Your task to perform on an android device: uninstall "eBay: The shopping marketplace" Image 0: 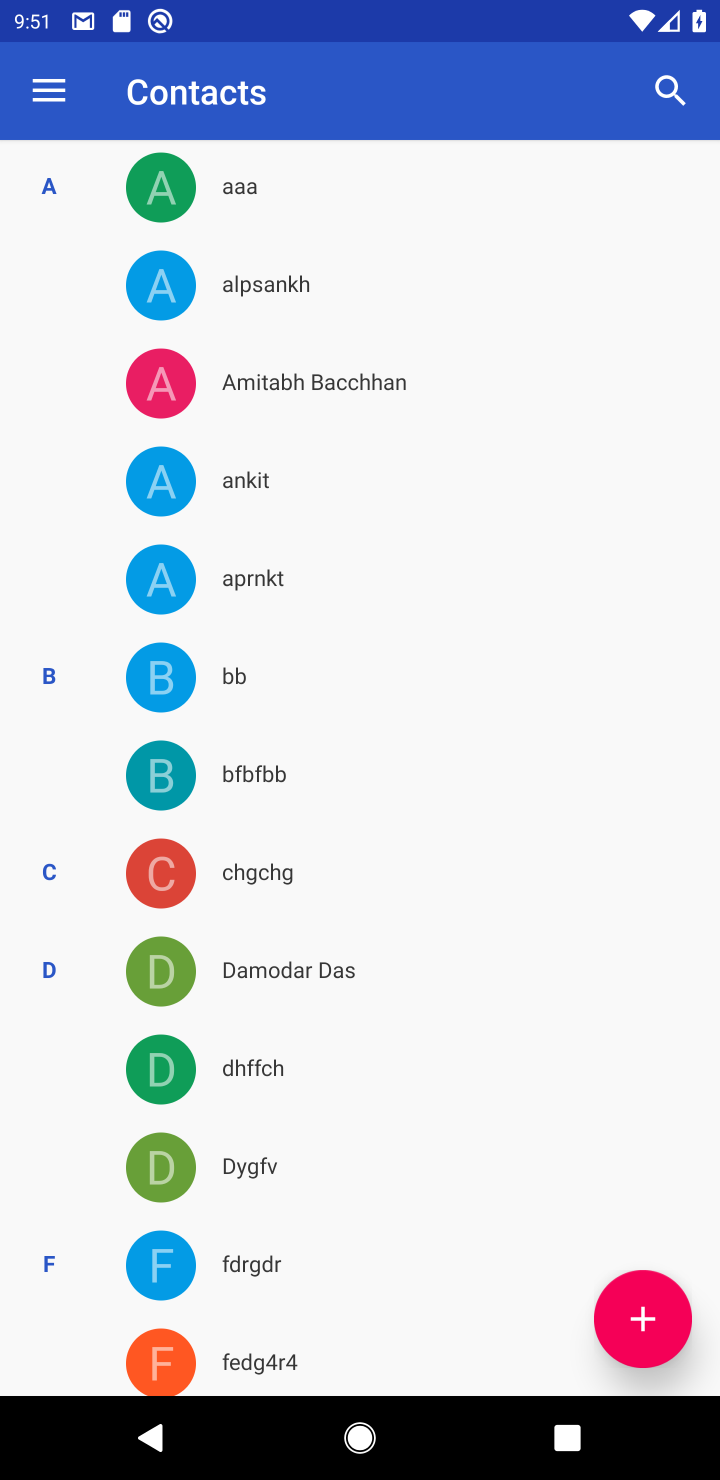
Step 0: press home button
Your task to perform on an android device: uninstall "eBay: The shopping marketplace" Image 1: 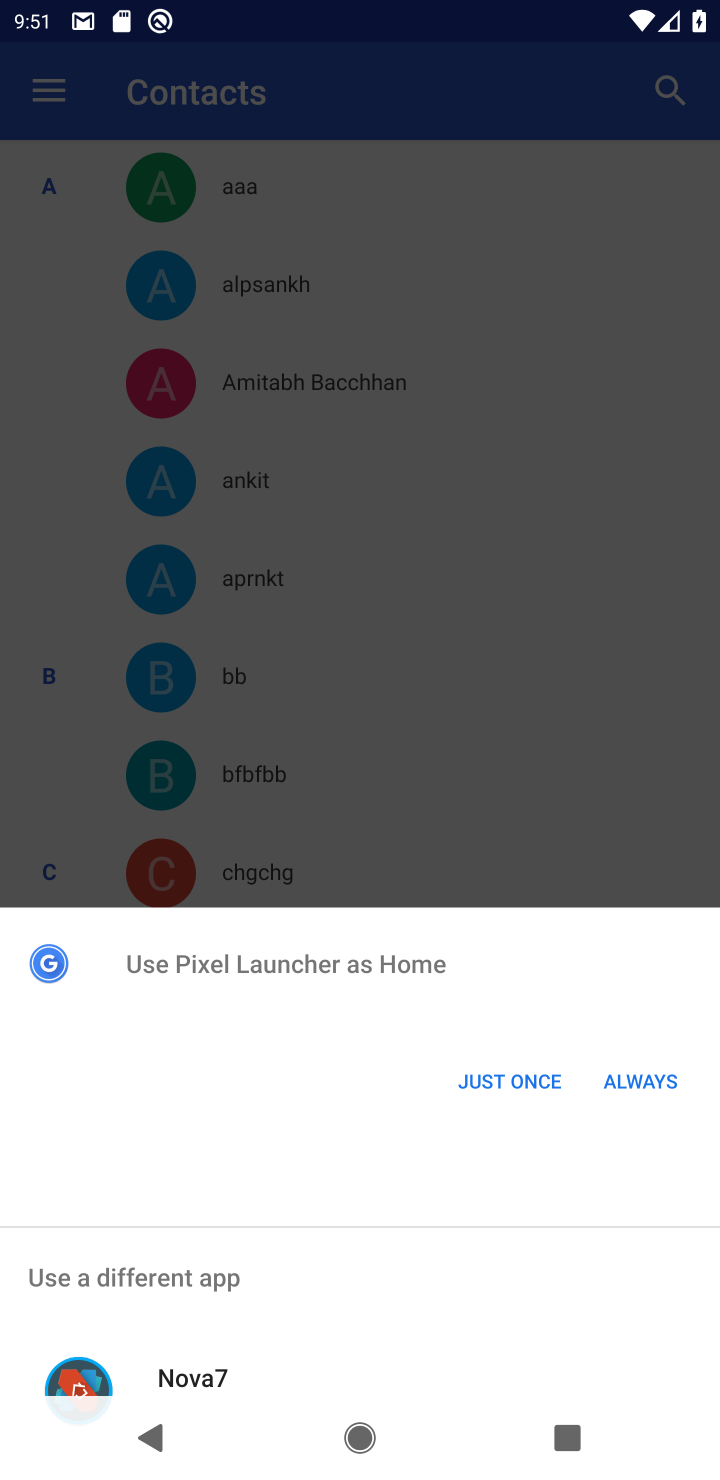
Step 1: press back button
Your task to perform on an android device: uninstall "eBay: The shopping marketplace" Image 2: 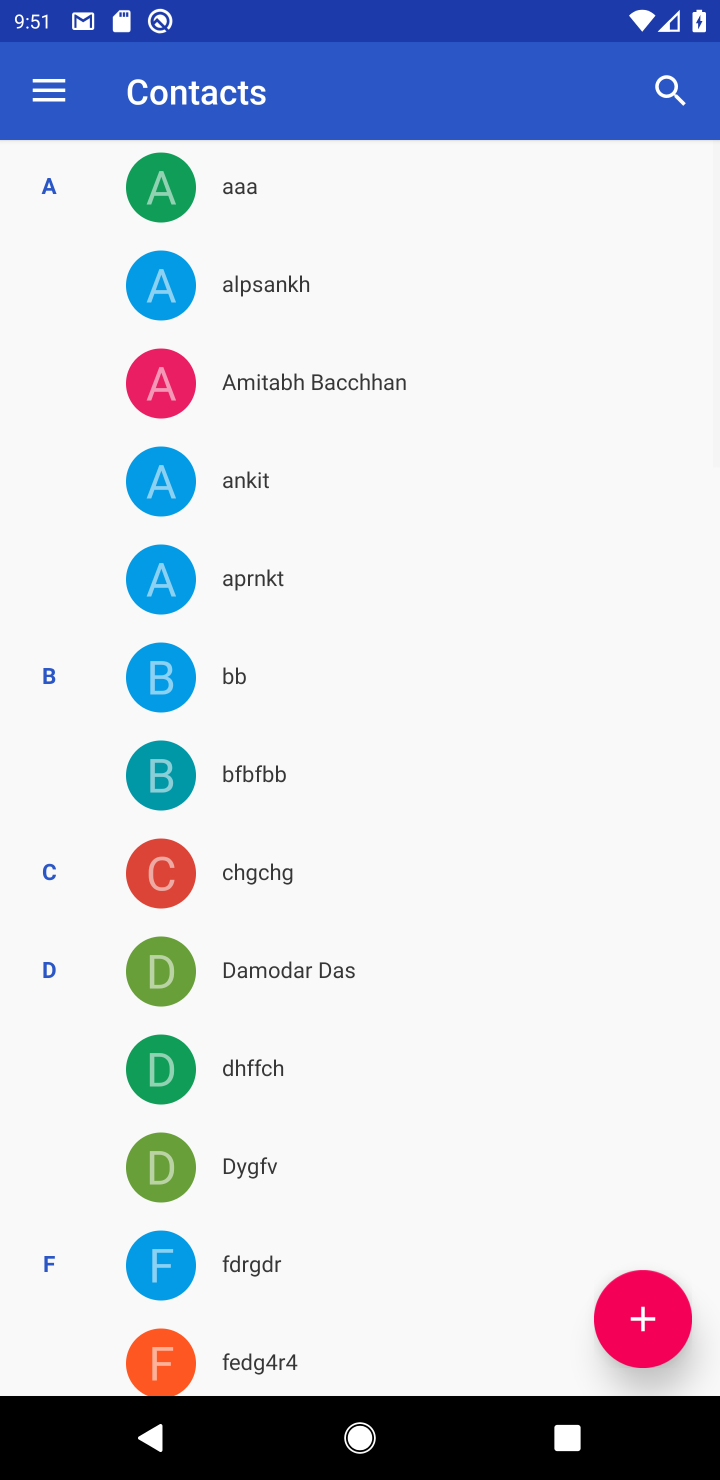
Step 2: press back button
Your task to perform on an android device: uninstall "eBay: The shopping marketplace" Image 3: 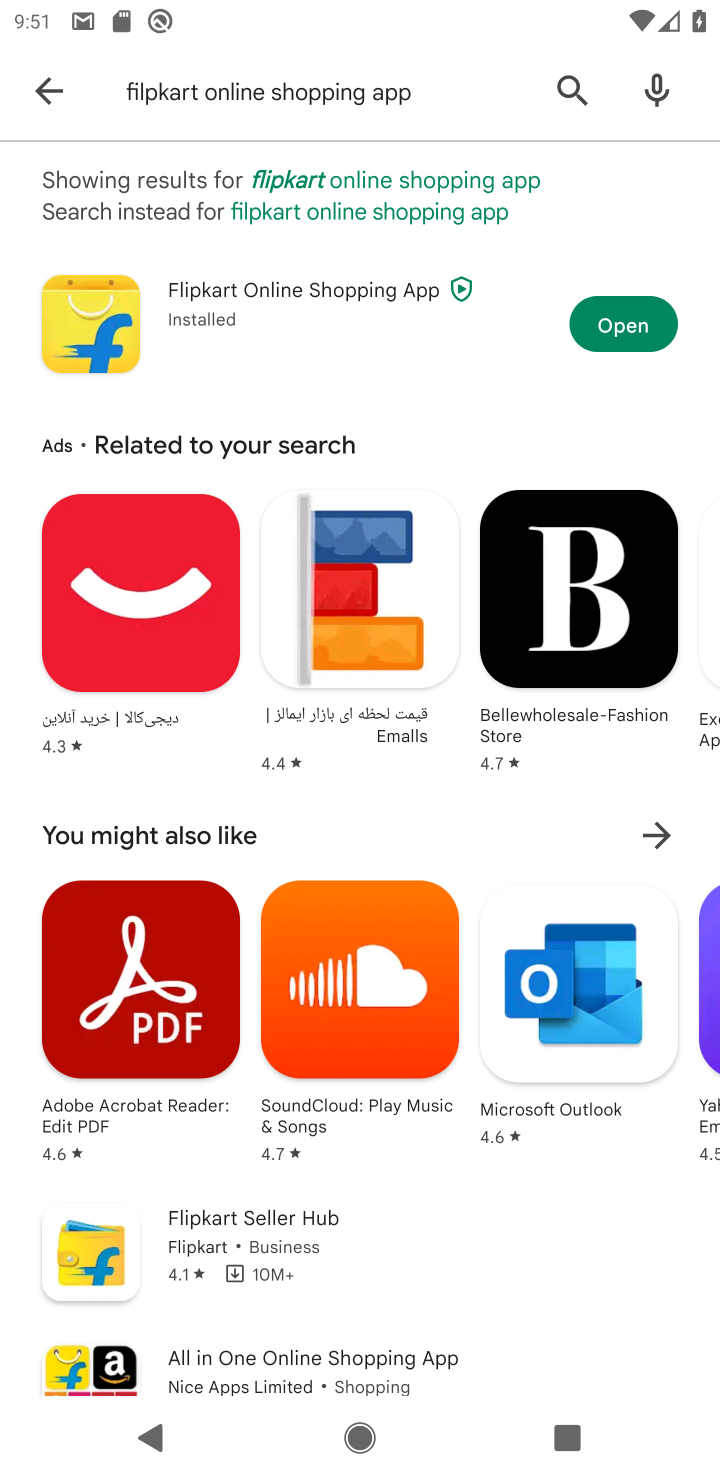
Step 3: click (574, 81)
Your task to perform on an android device: uninstall "eBay: The shopping marketplace" Image 4: 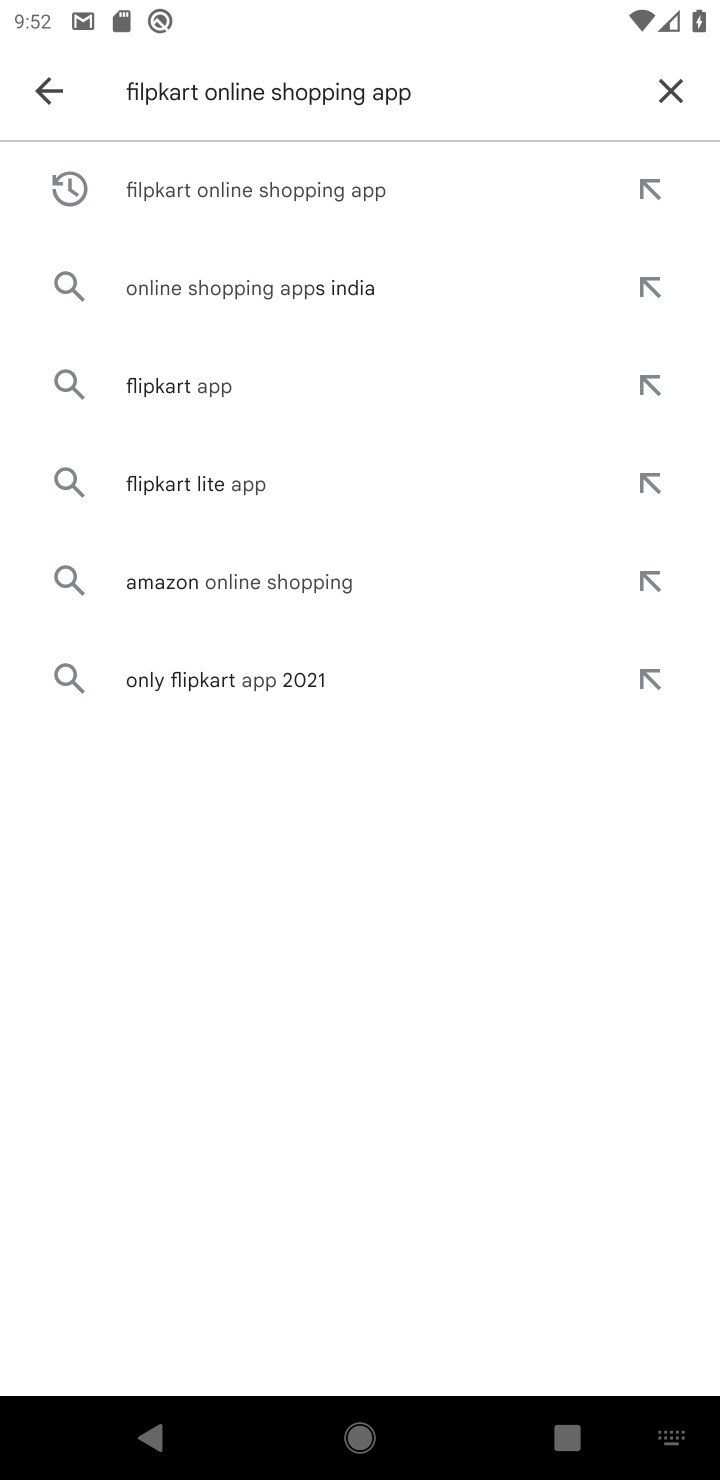
Step 4: click (664, 83)
Your task to perform on an android device: uninstall "eBay: The shopping marketplace" Image 5: 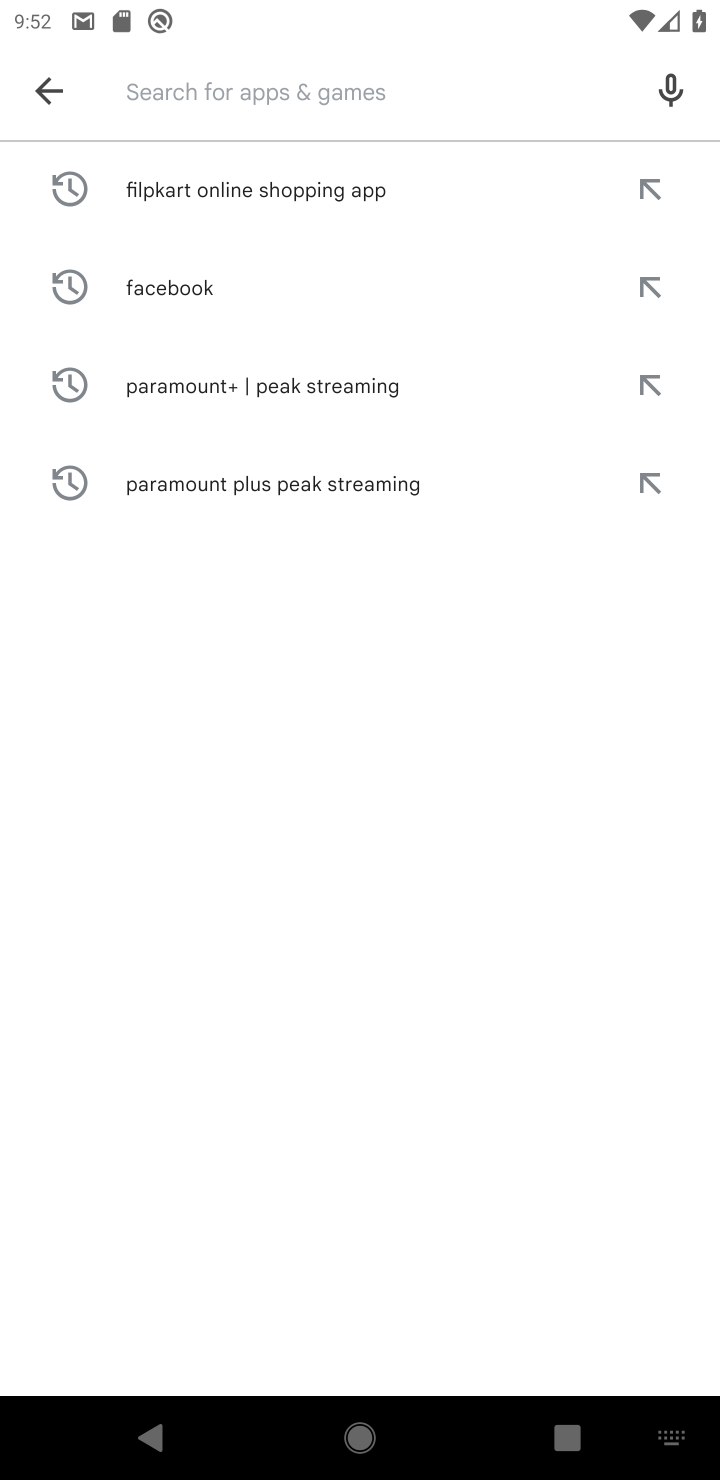
Step 5: type "eBay: The shopping marketplace"
Your task to perform on an android device: uninstall "eBay: The shopping marketplace" Image 6: 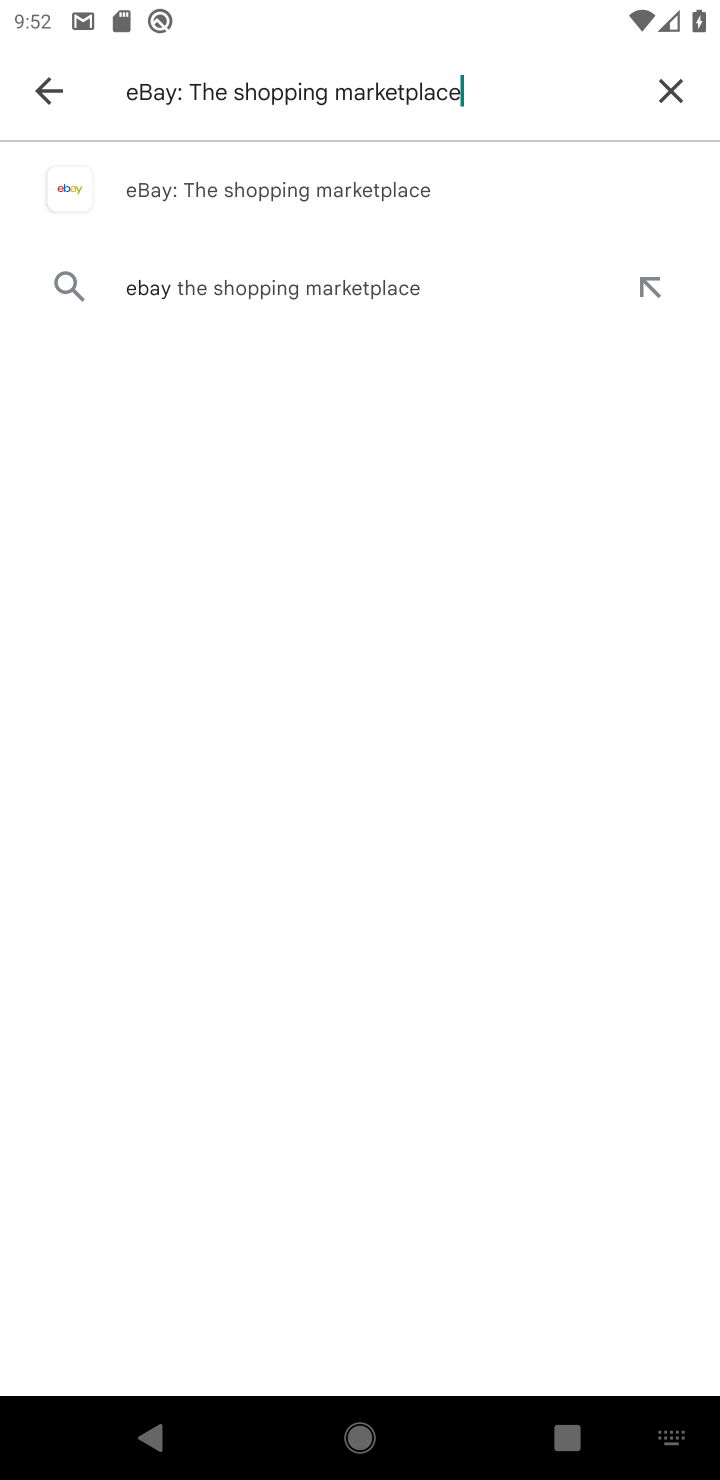
Step 6: click (358, 183)
Your task to perform on an android device: uninstall "eBay: The shopping marketplace" Image 7: 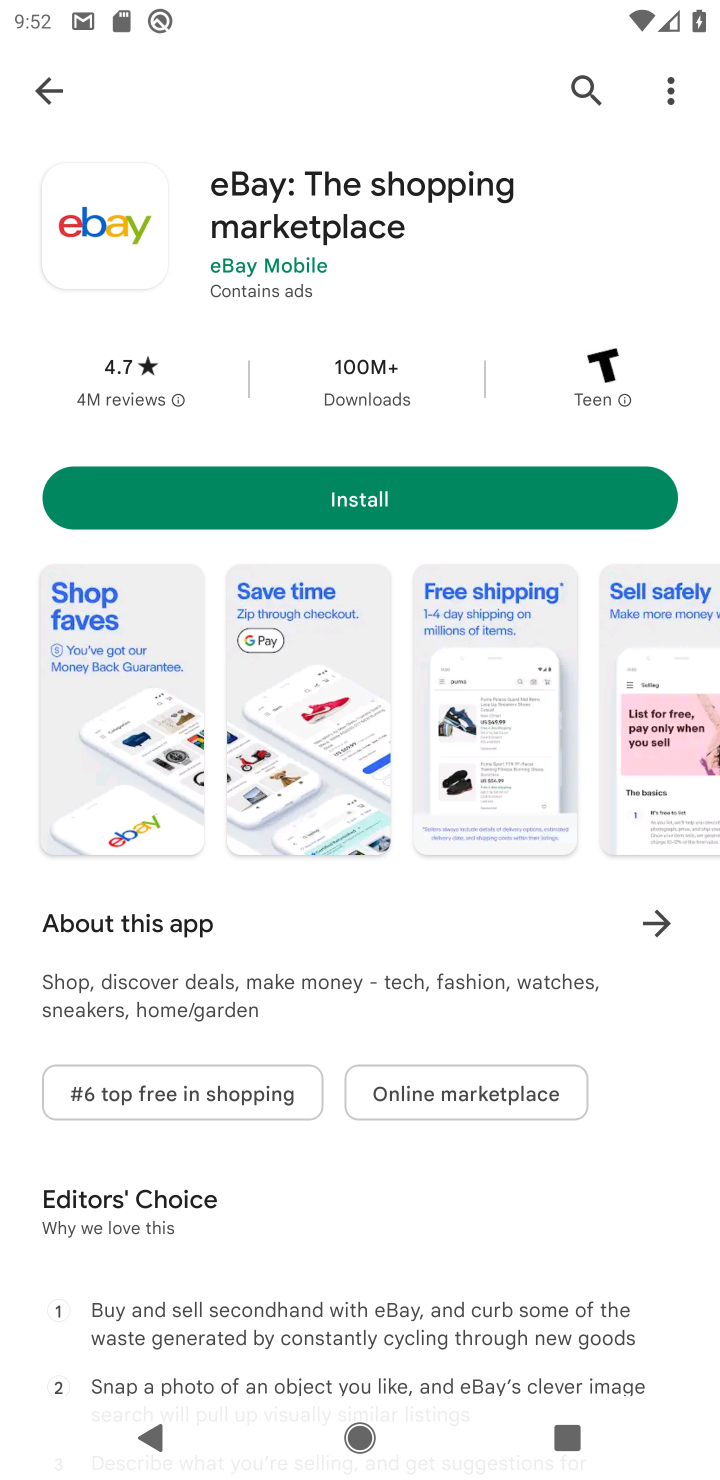
Step 7: task complete